Your task to perform on an android device: turn on priority inbox in the gmail app Image 0: 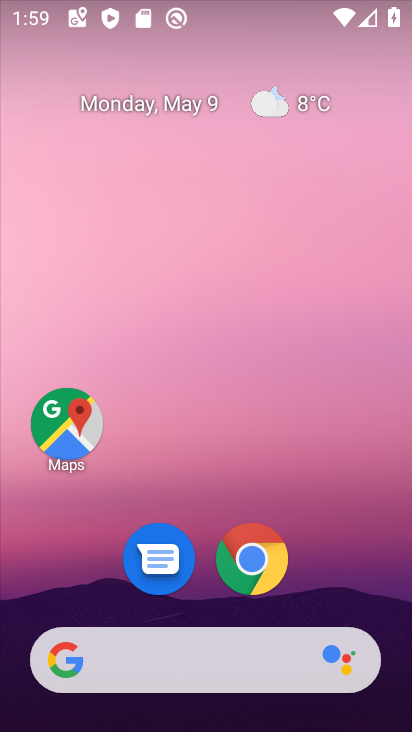
Step 0: drag from (327, 579) to (123, 55)
Your task to perform on an android device: turn on priority inbox in the gmail app Image 1: 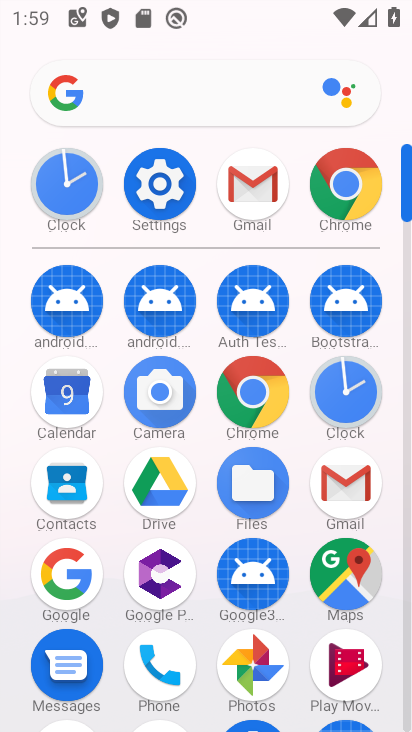
Step 1: click (252, 191)
Your task to perform on an android device: turn on priority inbox in the gmail app Image 2: 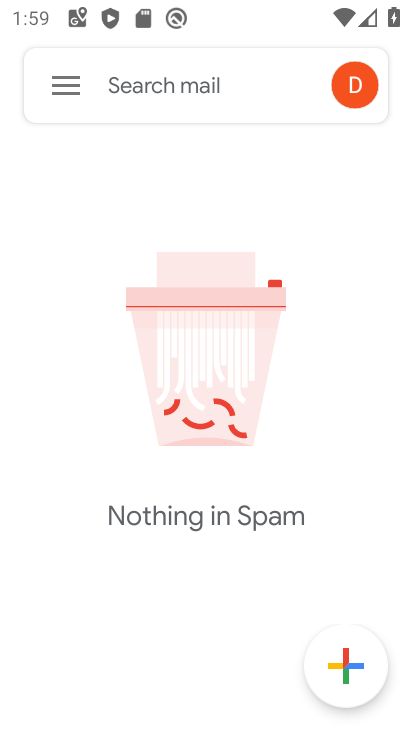
Step 2: click (59, 80)
Your task to perform on an android device: turn on priority inbox in the gmail app Image 3: 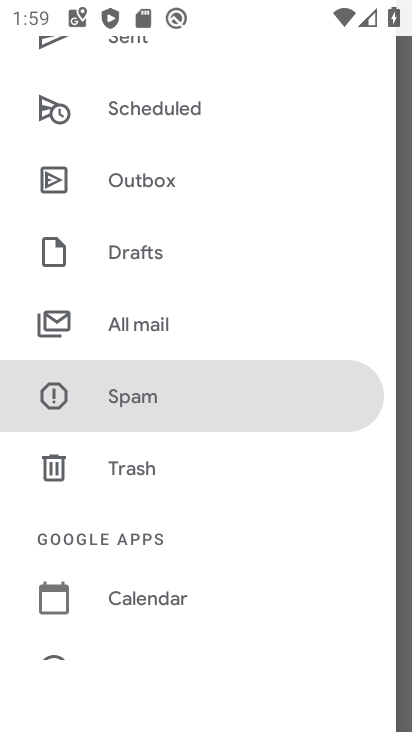
Step 3: drag from (236, 518) to (150, 17)
Your task to perform on an android device: turn on priority inbox in the gmail app Image 4: 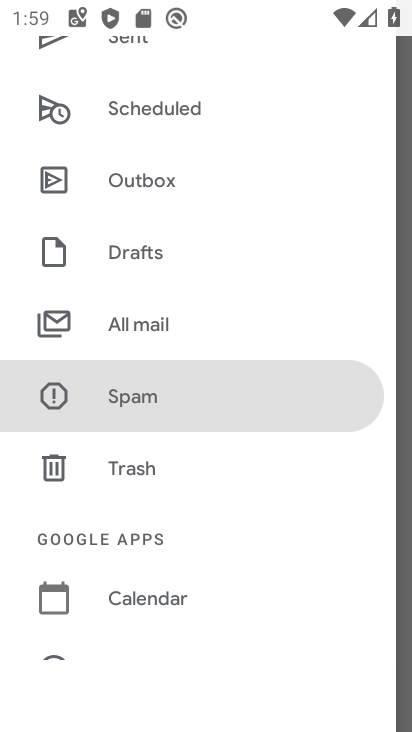
Step 4: drag from (209, 567) to (82, 77)
Your task to perform on an android device: turn on priority inbox in the gmail app Image 5: 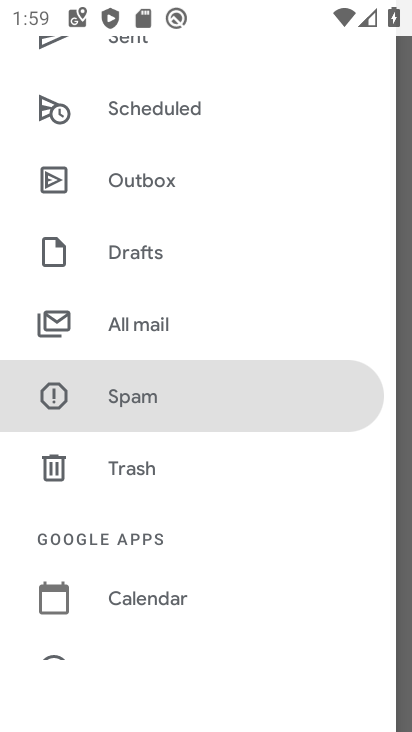
Step 5: drag from (192, 566) to (210, 198)
Your task to perform on an android device: turn on priority inbox in the gmail app Image 6: 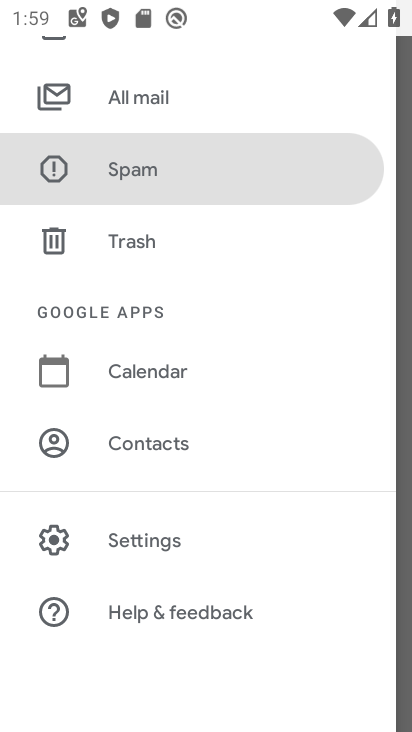
Step 6: click (145, 534)
Your task to perform on an android device: turn on priority inbox in the gmail app Image 7: 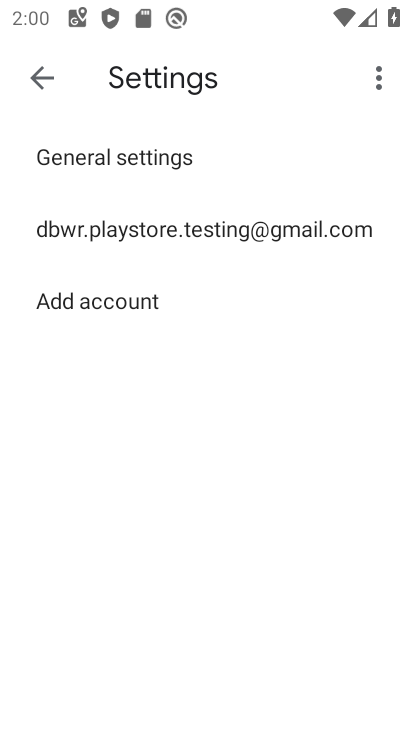
Step 7: click (95, 230)
Your task to perform on an android device: turn on priority inbox in the gmail app Image 8: 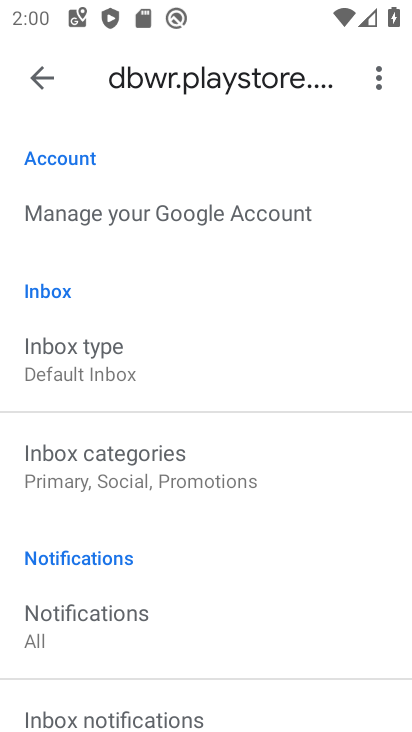
Step 8: click (59, 364)
Your task to perform on an android device: turn on priority inbox in the gmail app Image 9: 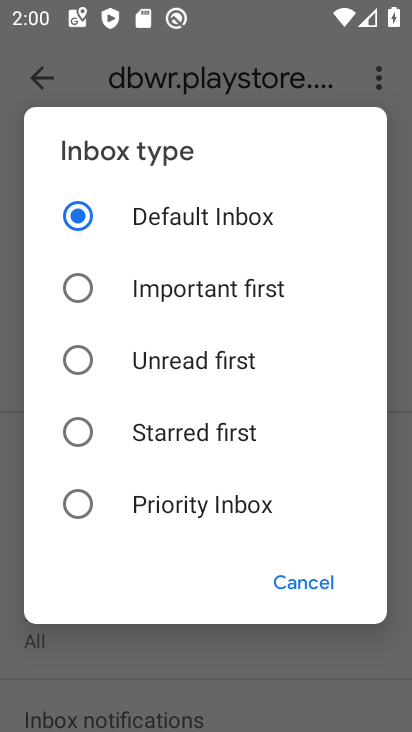
Step 9: click (79, 502)
Your task to perform on an android device: turn on priority inbox in the gmail app Image 10: 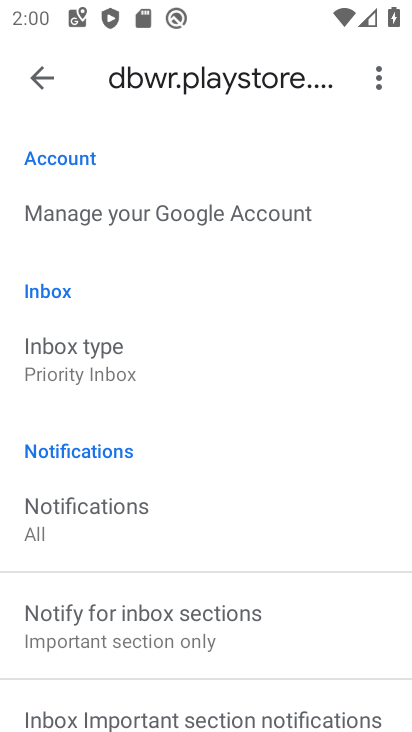
Step 10: task complete